Your task to perform on an android device: Go to battery settings Image 0: 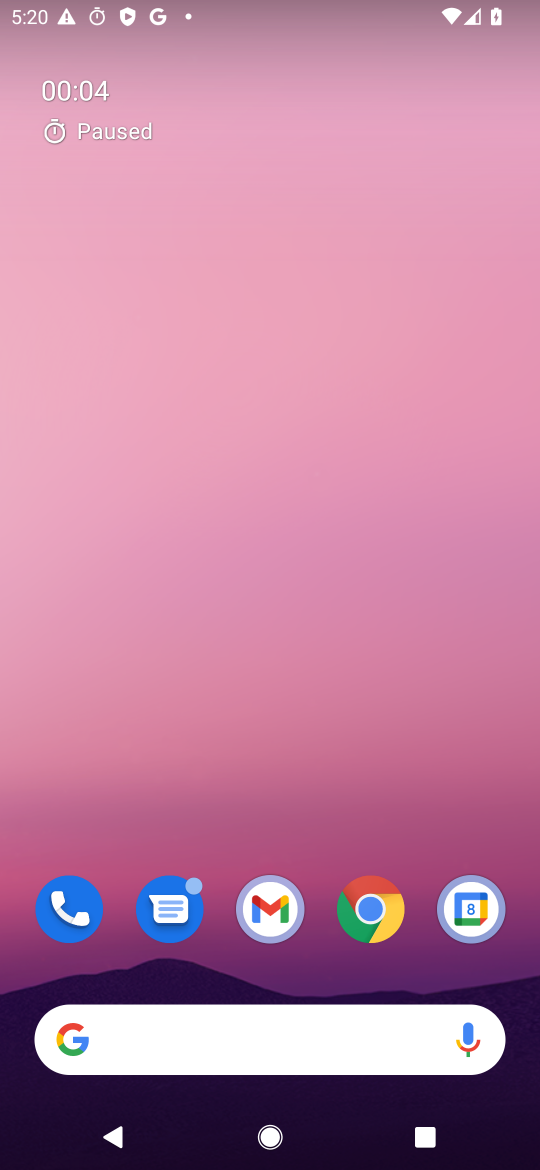
Step 0: drag from (290, 1050) to (415, 192)
Your task to perform on an android device: Go to battery settings Image 1: 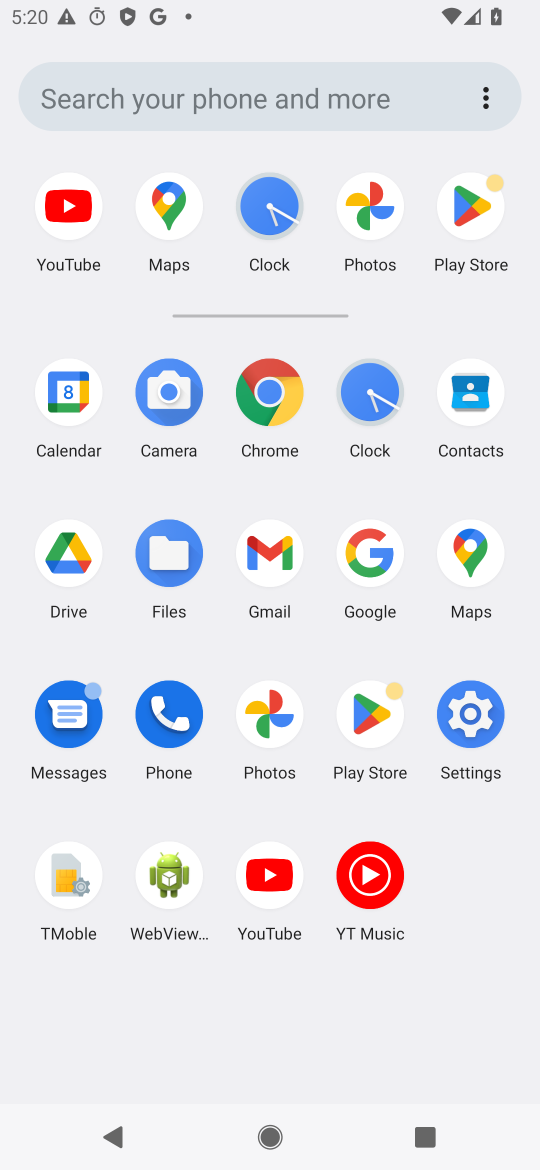
Step 1: click (468, 724)
Your task to perform on an android device: Go to battery settings Image 2: 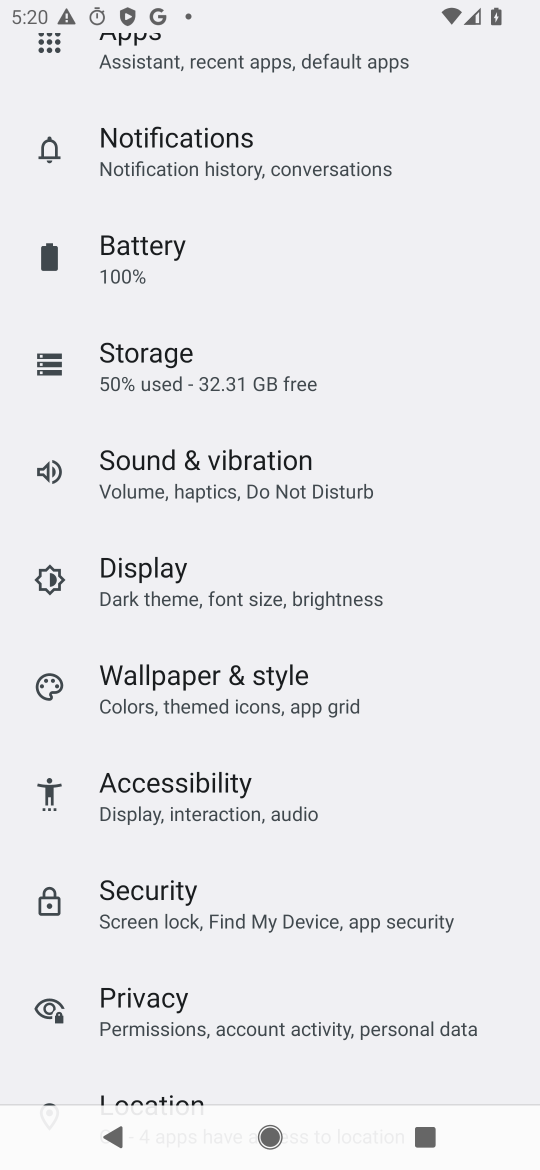
Step 2: click (160, 251)
Your task to perform on an android device: Go to battery settings Image 3: 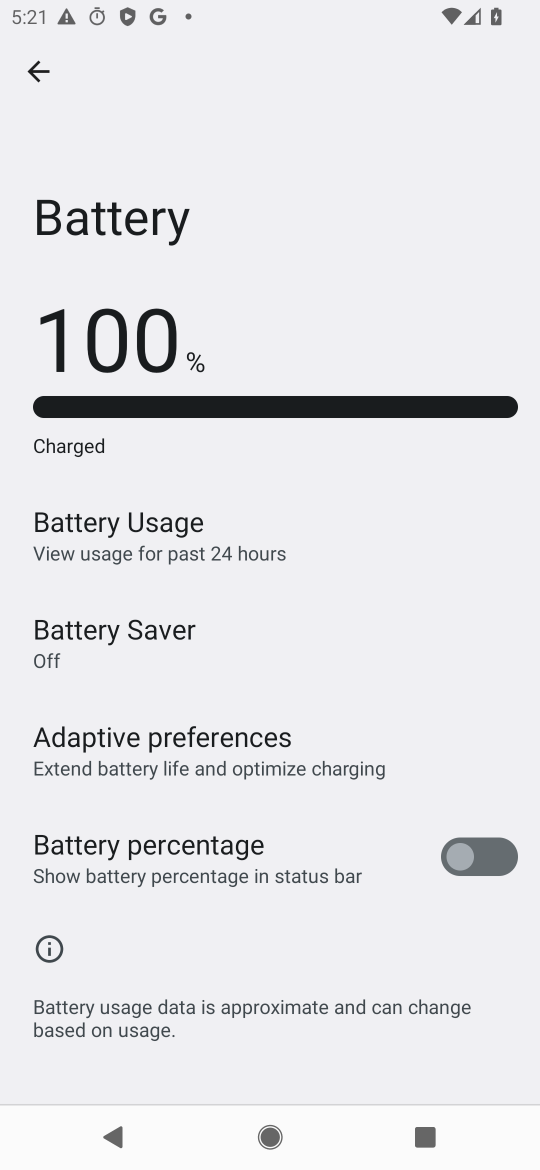
Step 3: task complete